Your task to perform on an android device: change notification settings in the gmail app Image 0: 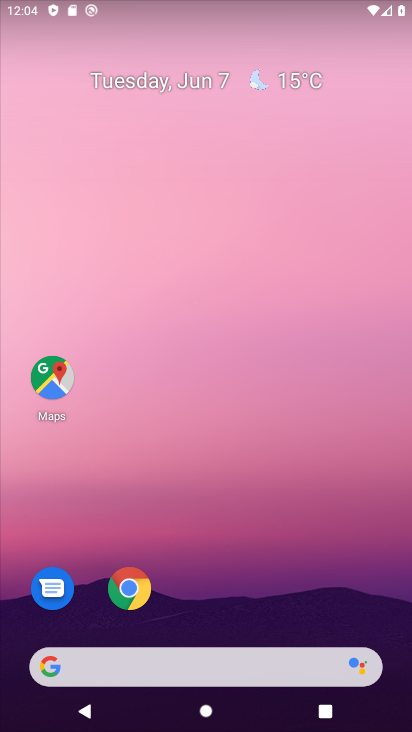
Step 0: drag from (267, 593) to (304, 14)
Your task to perform on an android device: change notification settings in the gmail app Image 1: 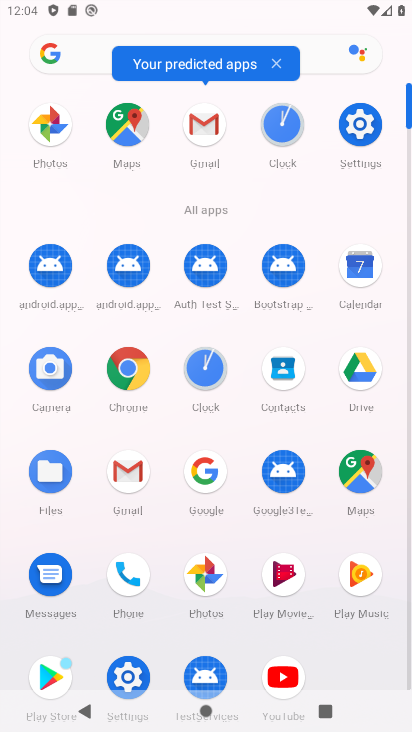
Step 1: click (208, 113)
Your task to perform on an android device: change notification settings in the gmail app Image 2: 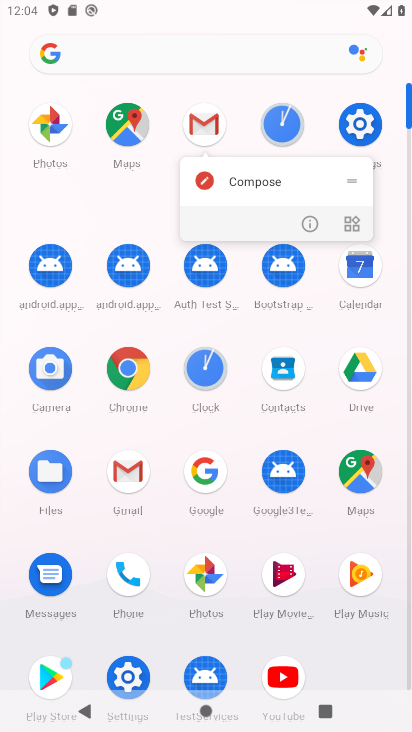
Step 2: click (308, 220)
Your task to perform on an android device: change notification settings in the gmail app Image 3: 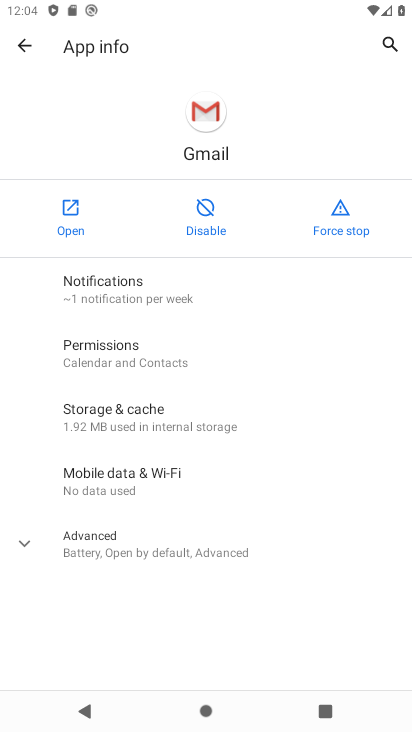
Step 3: click (165, 274)
Your task to perform on an android device: change notification settings in the gmail app Image 4: 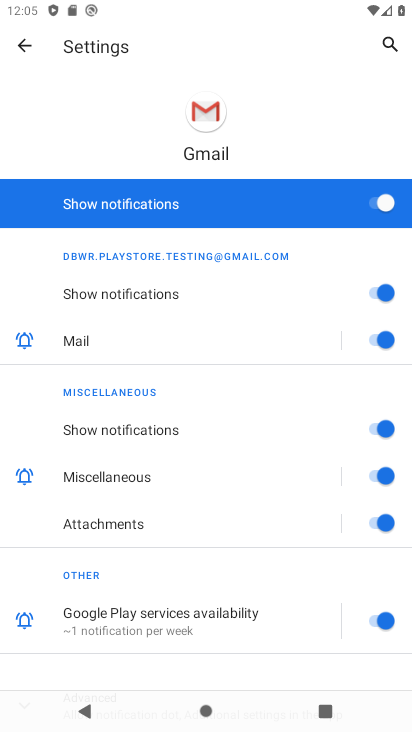
Step 4: click (386, 288)
Your task to perform on an android device: change notification settings in the gmail app Image 5: 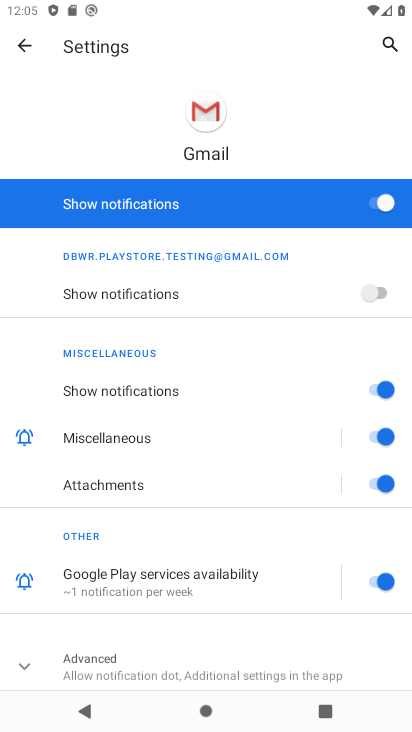
Step 5: task complete